Your task to perform on an android device: star an email in the gmail app Image 0: 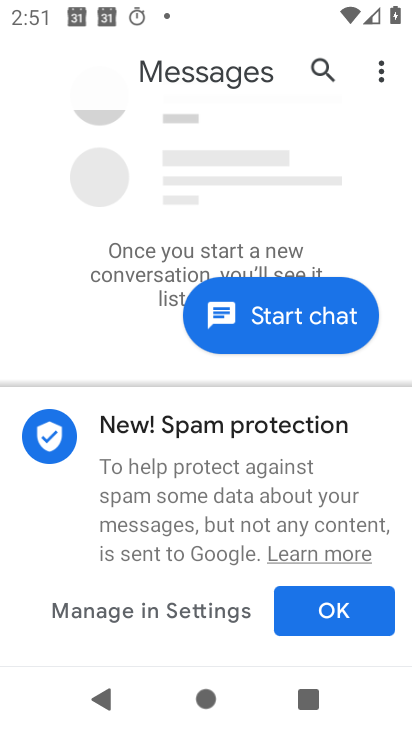
Step 0: press home button
Your task to perform on an android device: star an email in the gmail app Image 1: 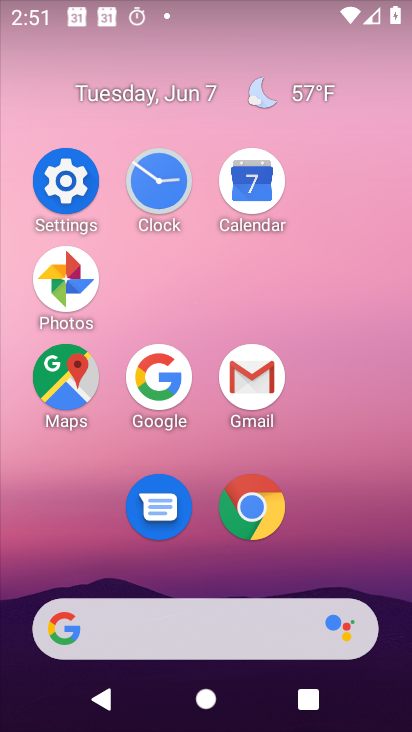
Step 1: click (231, 385)
Your task to perform on an android device: star an email in the gmail app Image 2: 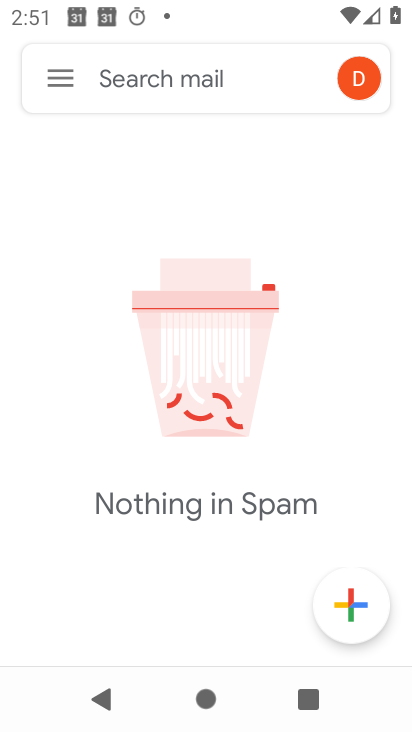
Step 2: click (84, 87)
Your task to perform on an android device: star an email in the gmail app Image 3: 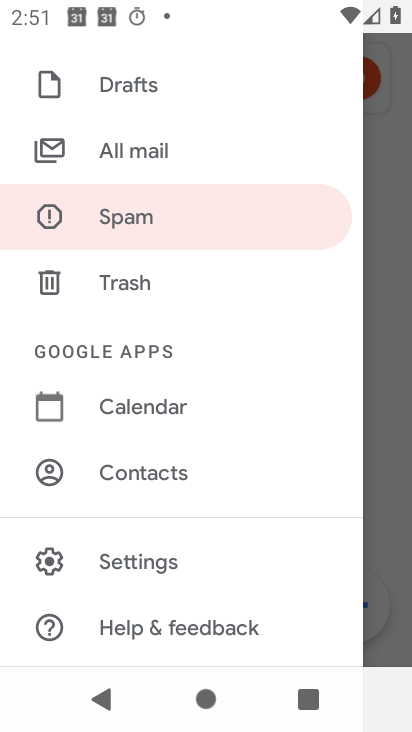
Step 3: click (209, 134)
Your task to perform on an android device: star an email in the gmail app Image 4: 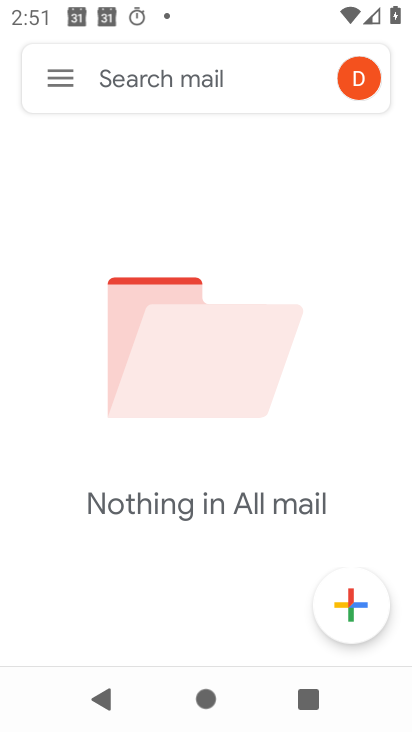
Step 4: task complete